Your task to perform on an android device: Show me popular games on the Play Store Image 0: 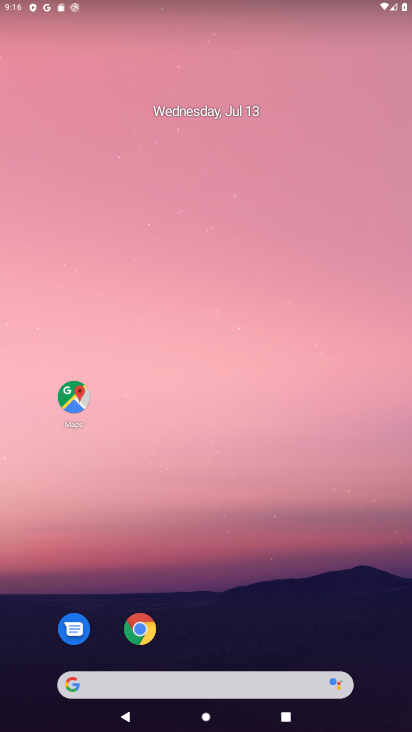
Step 0: drag from (194, 655) to (323, 15)
Your task to perform on an android device: Show me popular games on the Play Store Image 1: 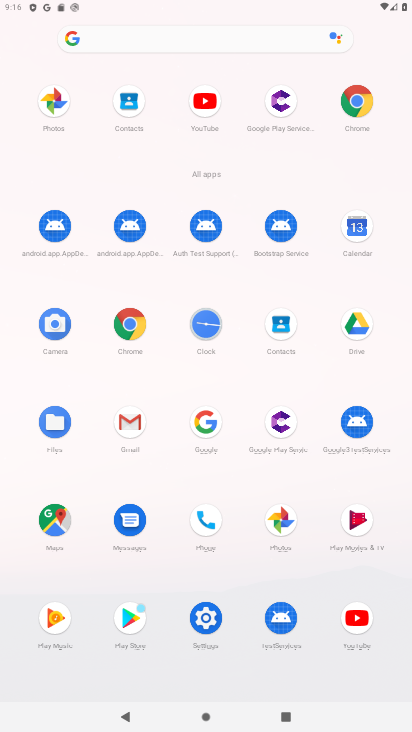
Step 1: click (120, 631)
Your task to perform on an android device: Show me popular games on the Play Store Image 2: 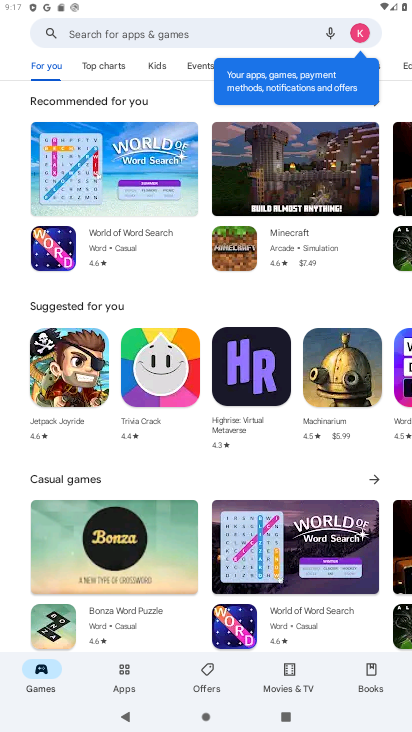
Step 2: click (109, 74)
Your task to perform on an android device: Show me popular games on the Play Store Image 3: 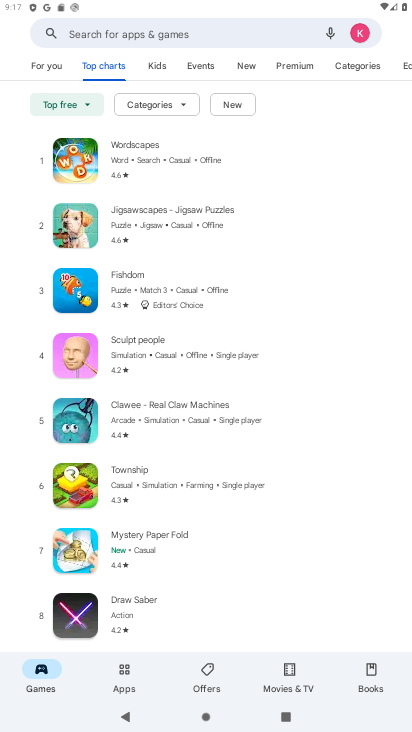
Step 3: click (177, 108)
Your task to perform on an android device: Show me popular games on the Play Store Image 4: 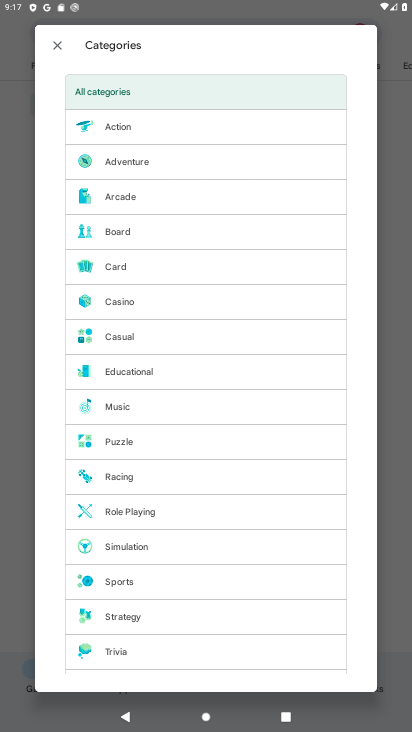
Step 4: task complete